Your task to perform on an android device: turn on improve location accuracy Image 0: 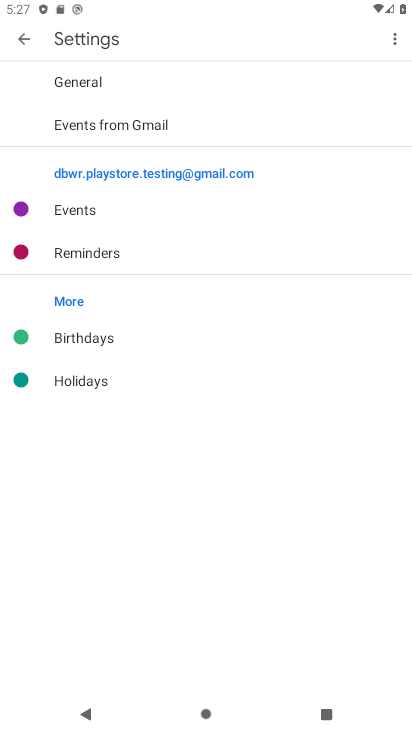
Step 0: press home button
Your task to perform on an android device: turn on improve location accuracy Image 1: 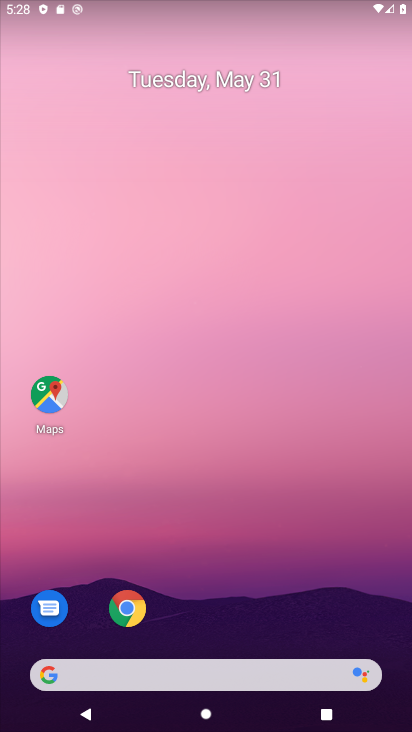
Step 1: drag from (218, 655) to (279, 56)
Your task to perform on an android device: turn on improve location accuracy Image 2: 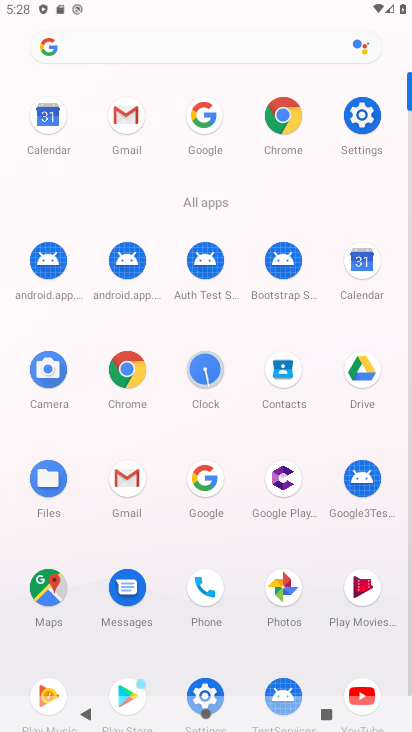
Step 2: click (370, 120)
Your task to perform on an android device: turn on improve location accuracy Image 3: 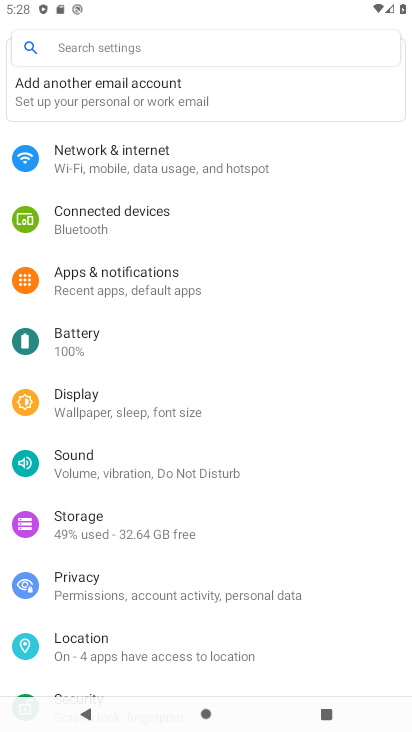
Step 3: click (140, 646)
Your task to perform on an android device: turn on improve location accuracy Image 4: 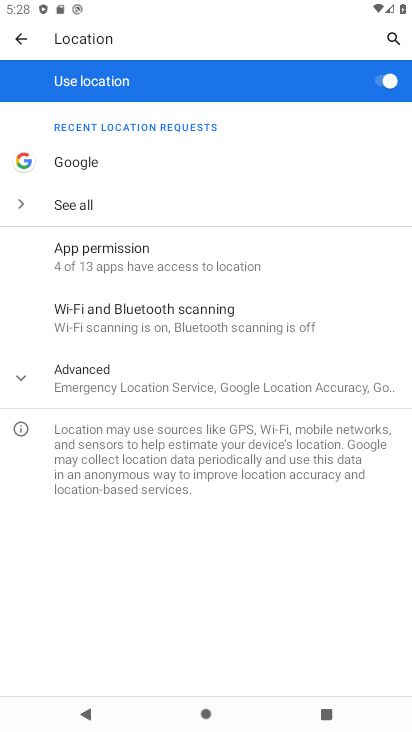
Step 4: click (107, 382)
Your task to perform on an android device: turn on improve location accuracy Image 5: 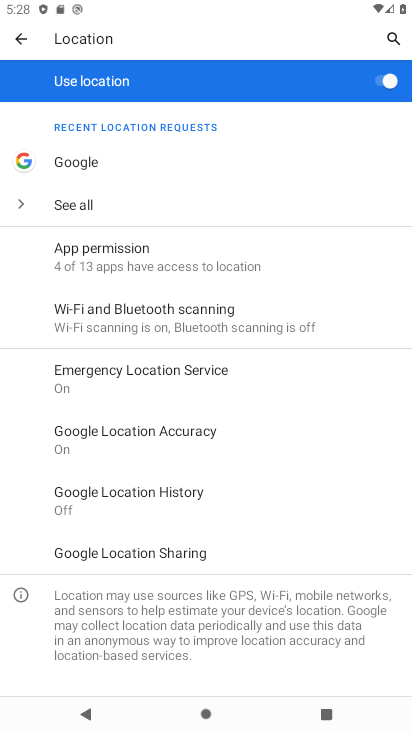
Step 5: click (117, 443)
Your task to perform on an android device: turn on improve location accuracy Image 6: 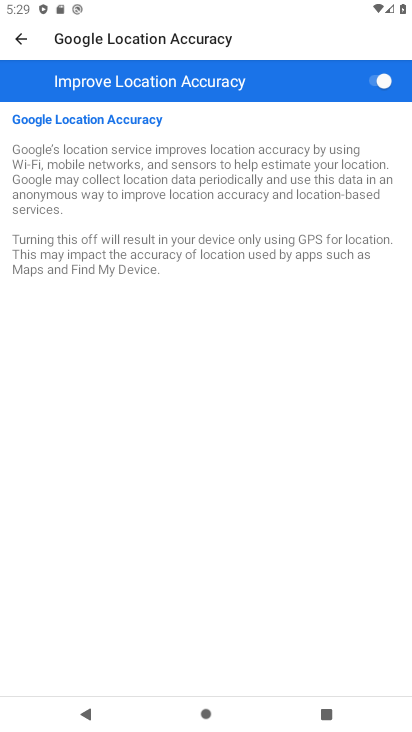
Step 6: task complete